Your task to perform on an android device: Go to Amazon Image 0: 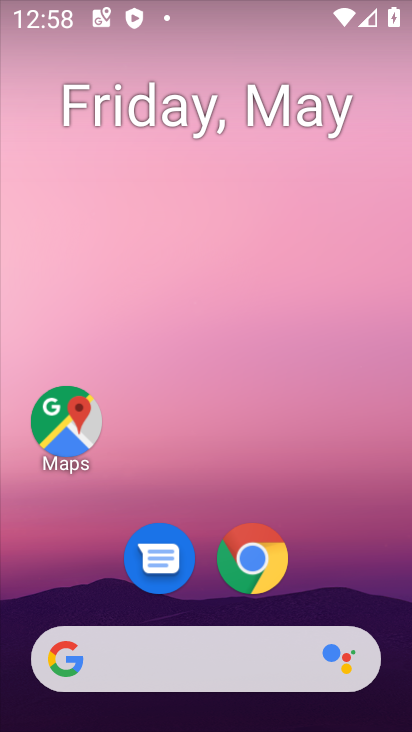
Step 0: click (263, 572)
Your task to perform on an android device: Go to Amazon Image 1: 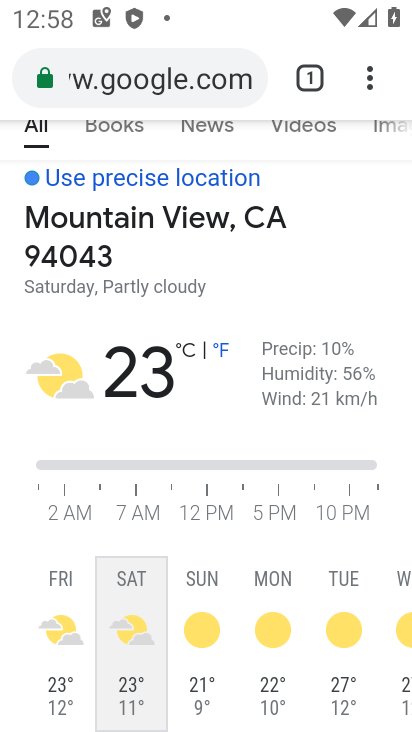
Step 1: click (313, 83)
Your task to perform on an android device: Go to Amazon Image 2: 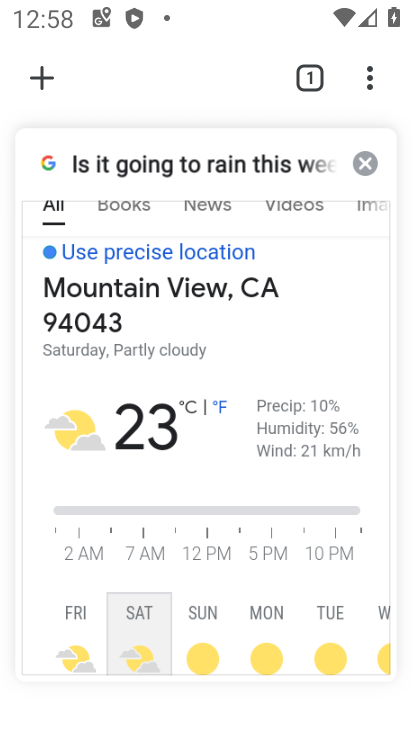
Step 2: click (35, 79)
Your task to perform on an android device: Go to Amazon Image 3: 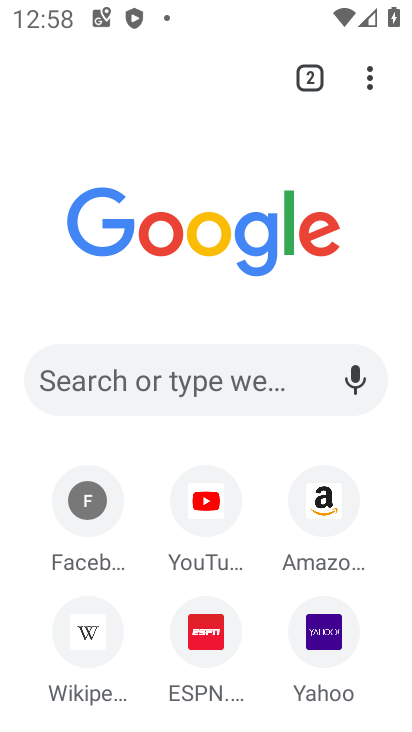
Step 3: click (327, 495)
Your task to perform on an android device: Go to Amazon Image 4: 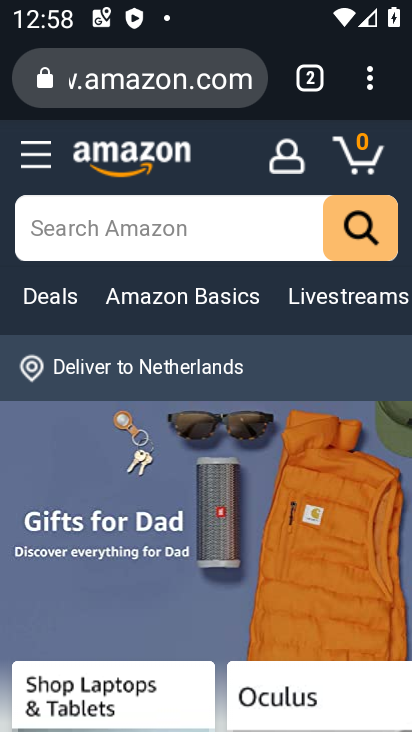
Step 4: task complete